Your task to perform on an android device: Open Google Image 0: 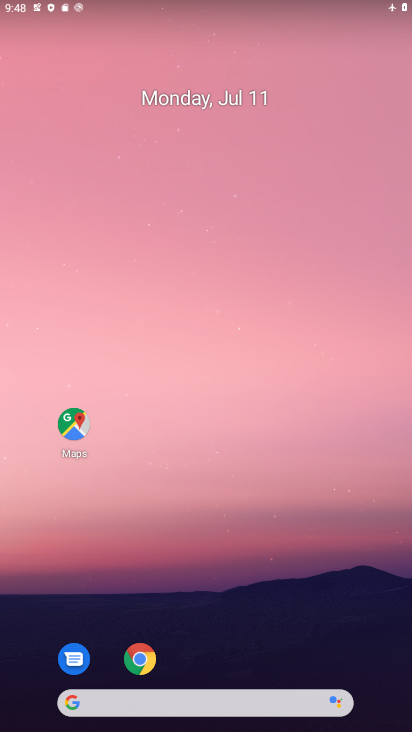
Step 0: drag from (211, 718) to (250, 130)
Your task to perform on an android device: Open Google Image 1: 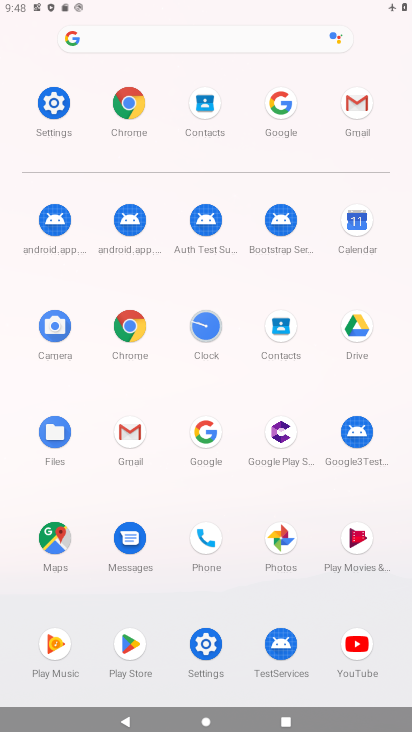
Step 1: click (205, 430)
Your task to perform on an android device: Open Google Image 2: 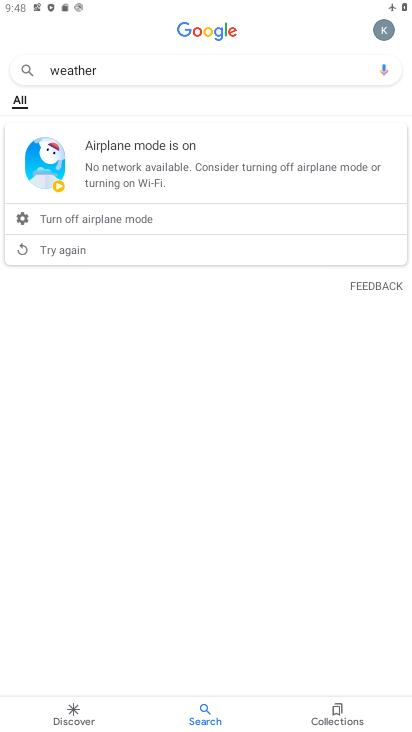
Step 2: task complete